Your task to perform on an android device: check battery use Image 0: 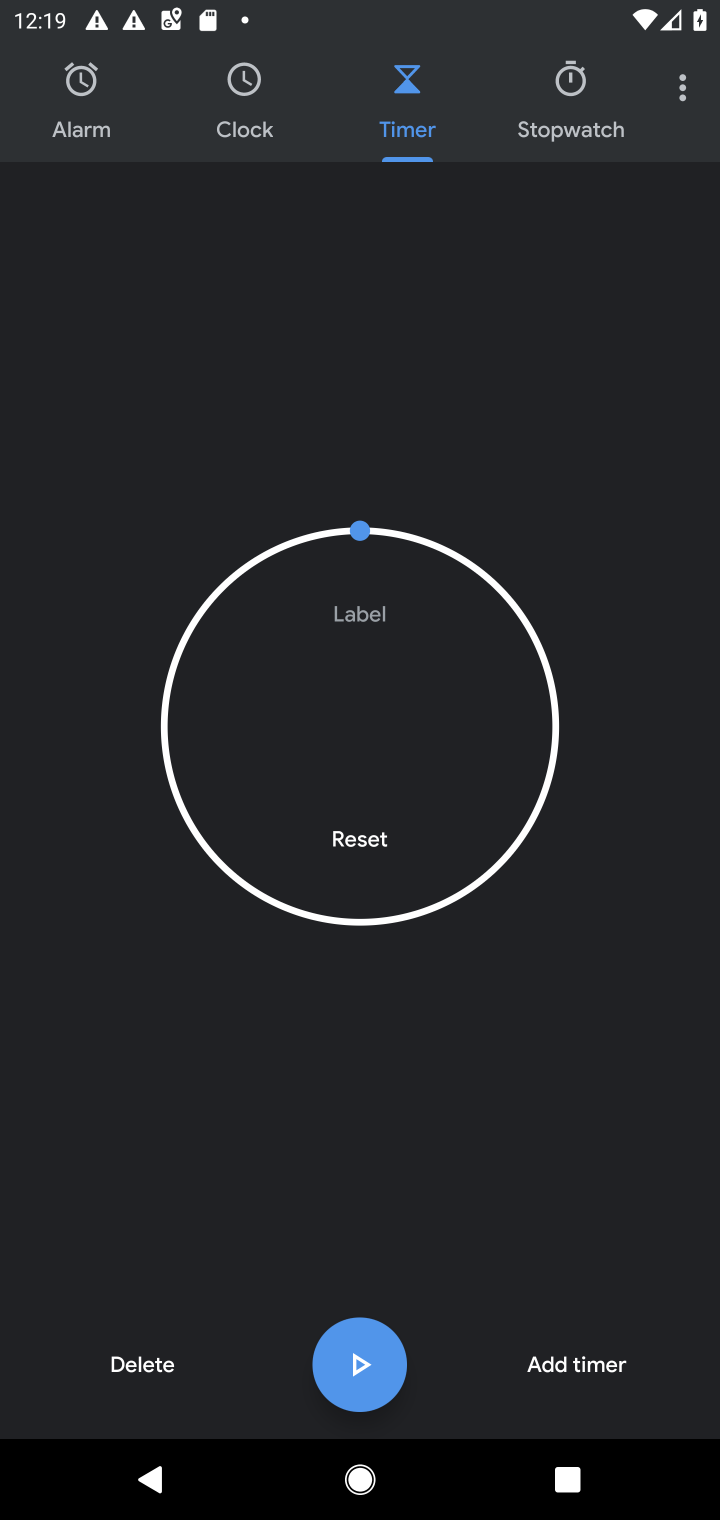
Step 0: press home button
Your task to perform on an android device: check battery use Image 1: 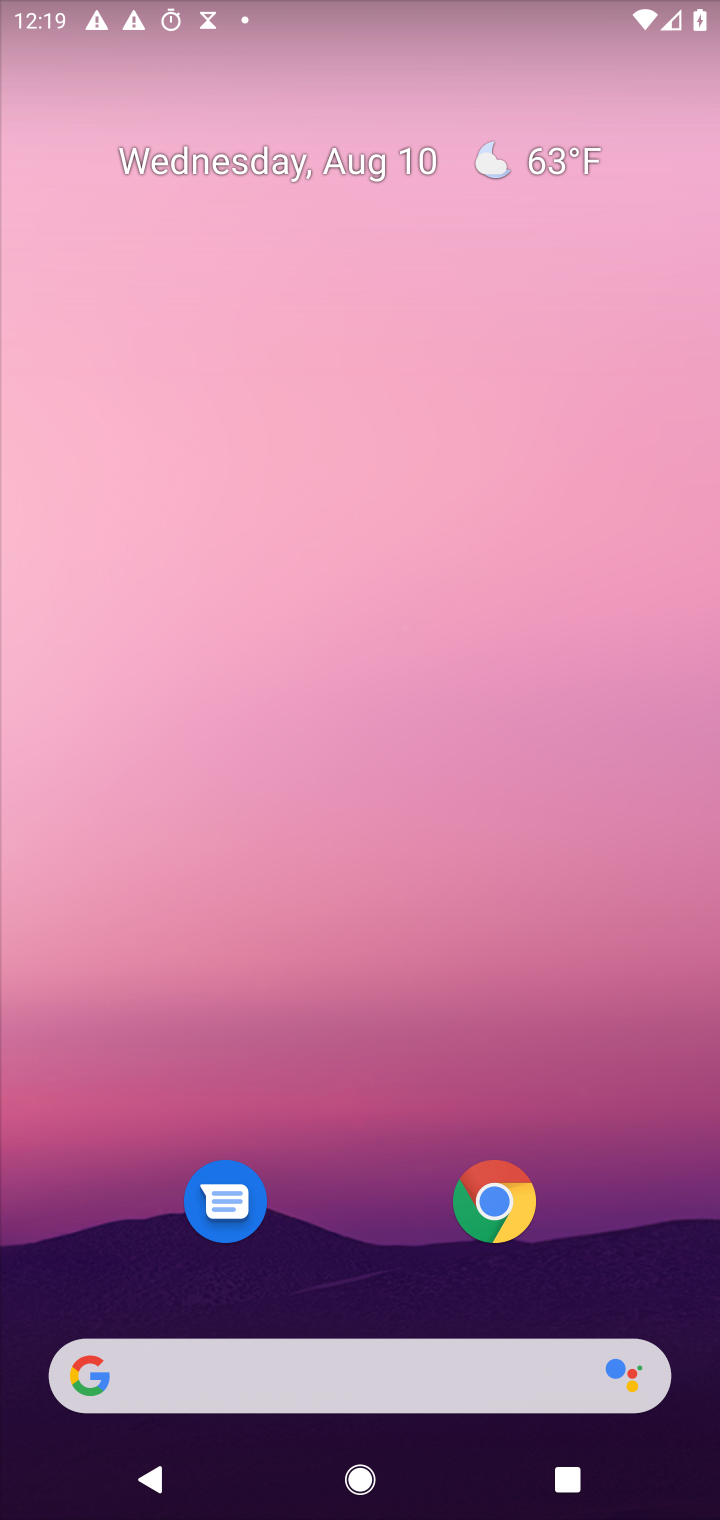
Step 1: drag from (335, 726) to (364, 93)
Your task to perform on an android device: check battery use Image 2: 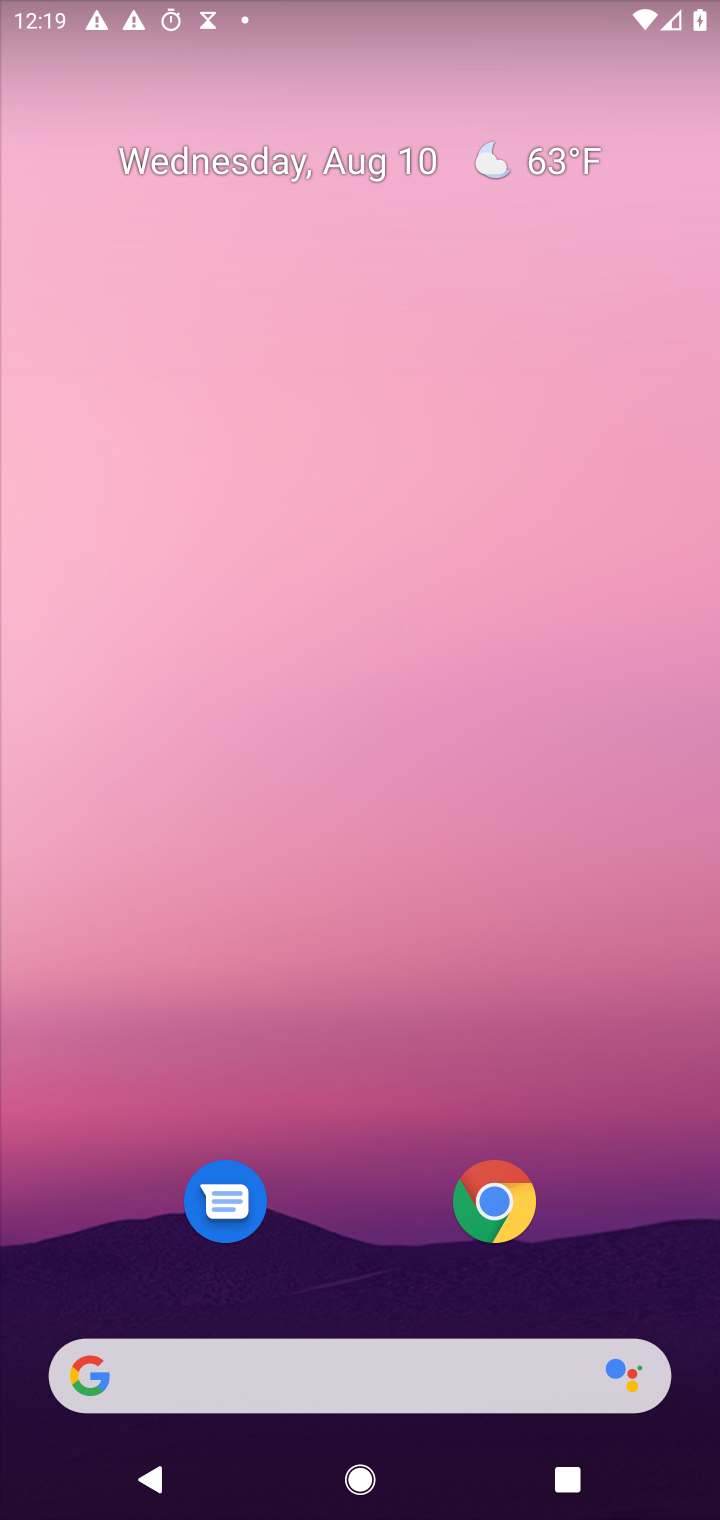
Step 2: drag from (366, 1212) to (716, 269)
Your task to perform on an android device: check battery use Image 3: 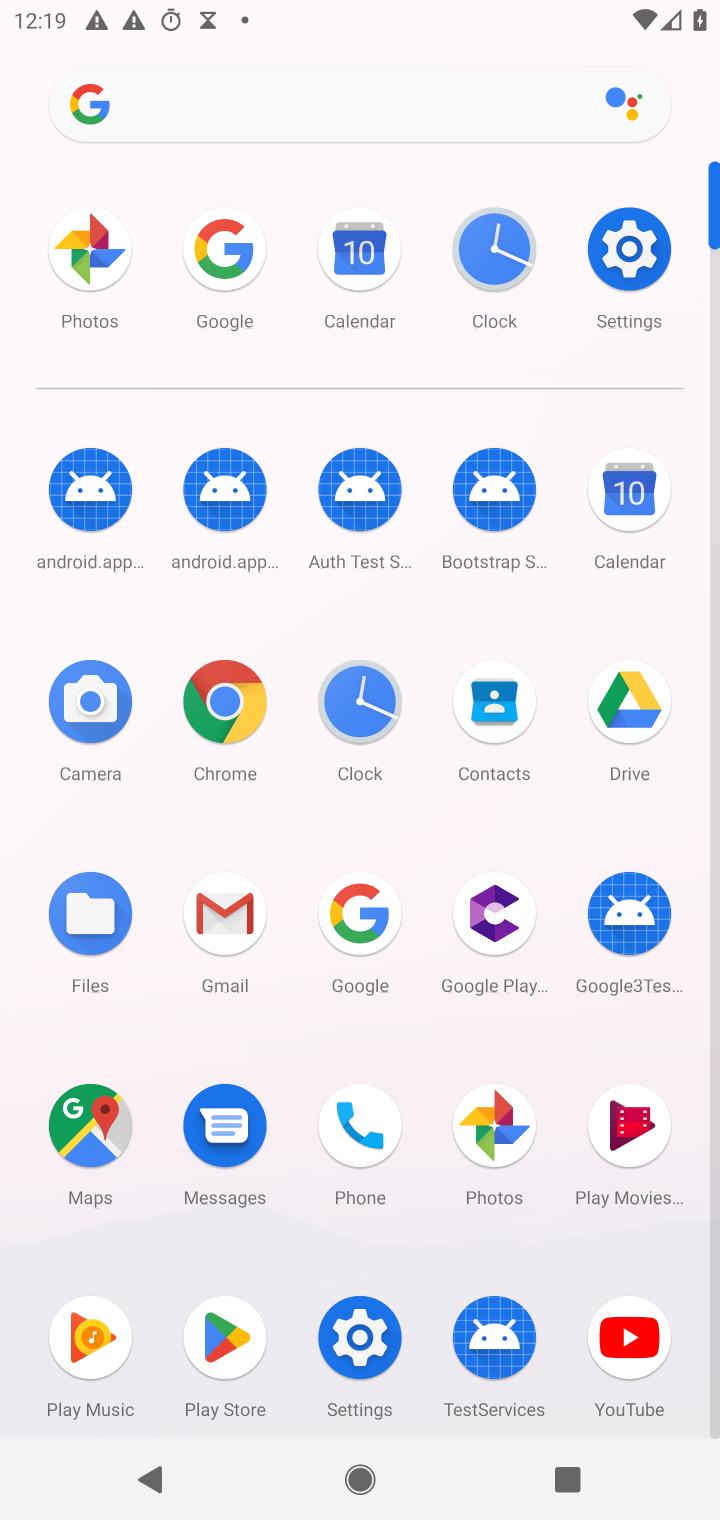
Step 3: click (636, 259)
Your task to perform on an android device: check battery use Image 4: 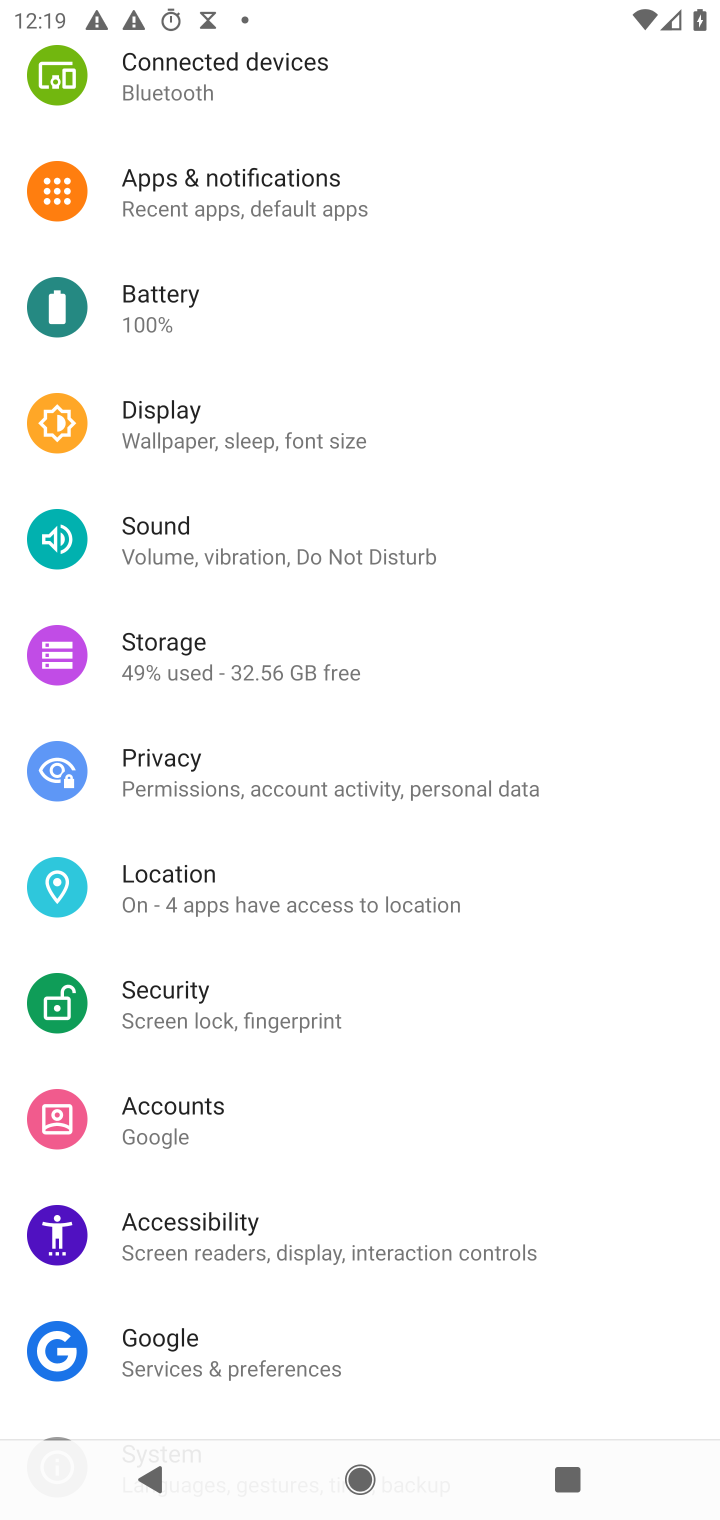
Step 4: click (183, 293)
Your task to perform on an android device: check battery use Image 5: 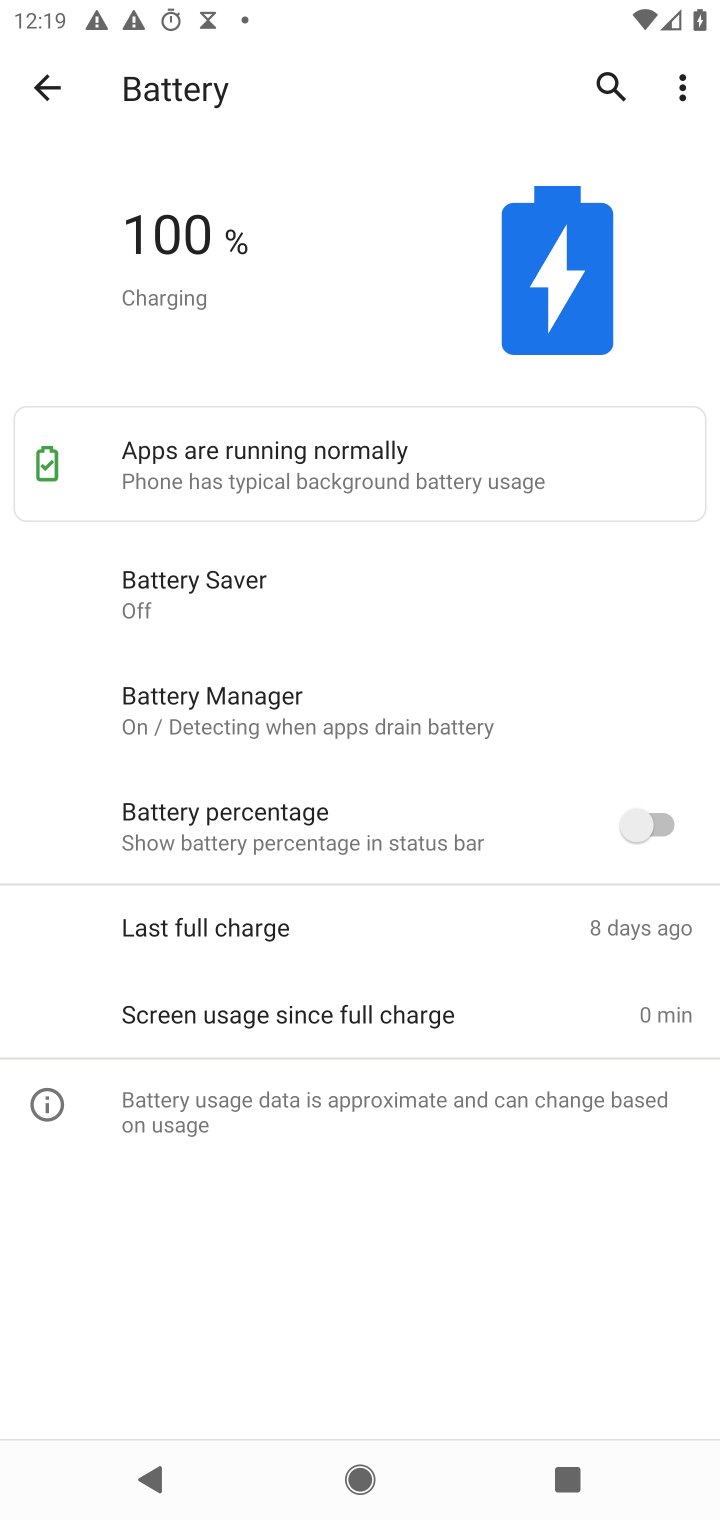
Step 5: task complete